Your task to perform on an android device: toggle pop-ups in chrome Image 0: 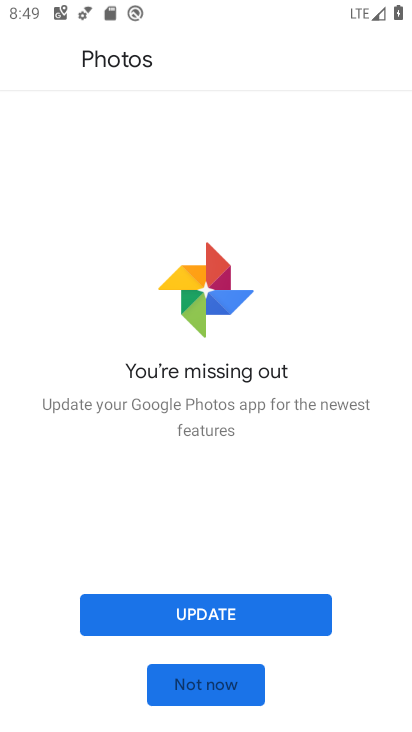
Step 0: press home button
Your task to perform on an android device: toggle pop-ups in chrome Image 1: 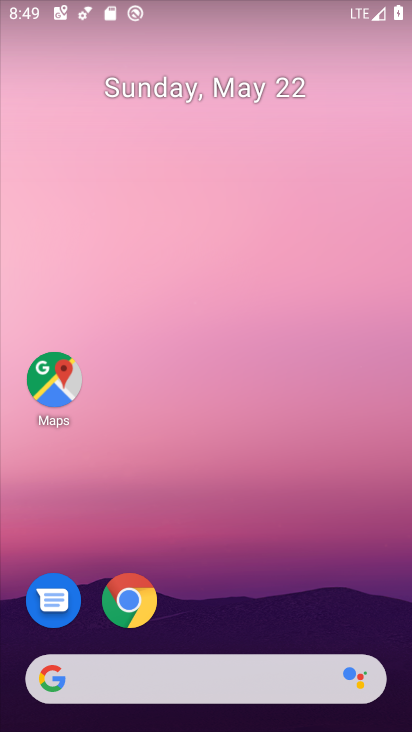
Step 1: click (140, 593)
Your task to perform on an android device: toggle pop-ups in chrome Image 2: 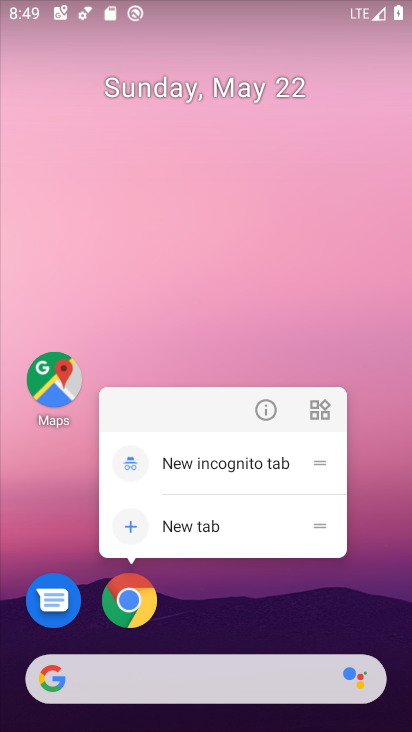
Step 2: click (105, 604)
Your task to perform on an android device: toggle pop-ups in chrome Image 3: 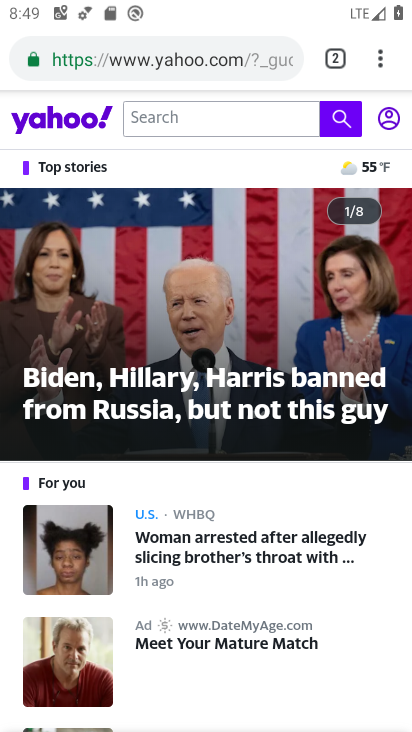
Step 3: click (380, 48)
Your task to perform on an android device: toggle pop-ups in chrome Image 4: 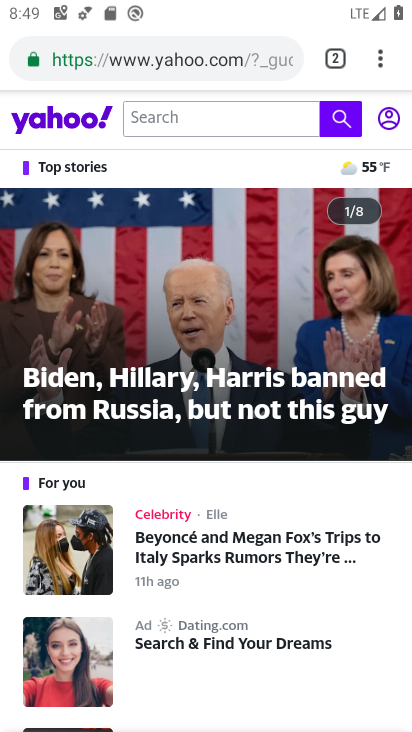
Step 4: click (380, 62)
Your task to perform on an android device: toggle pop-ups in chrome Image 5: 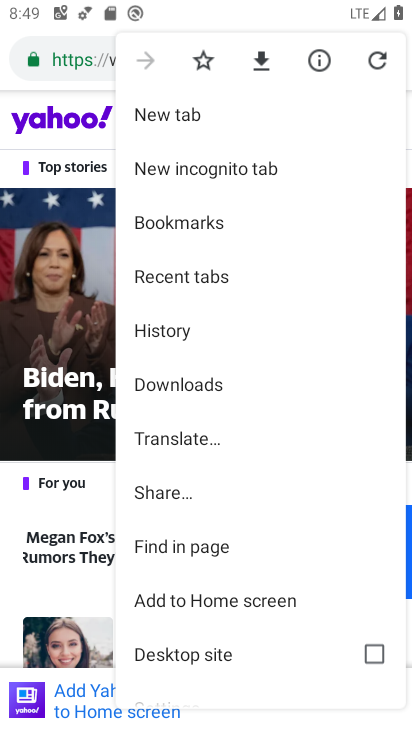
Step 5: drag from (201, 631) to (214, 323)
Your task to perform on an android device: toggle pop-ups in chrome Image 6: 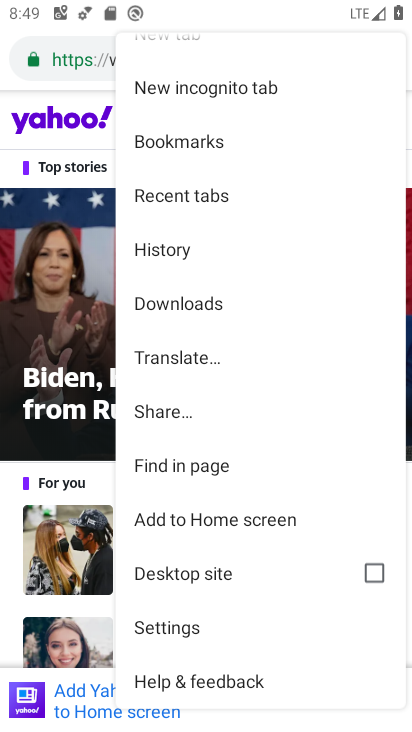
Step 6: click (159, 617)
Your task to perform on an android device: toggle pop-ups in chrome Image 7: 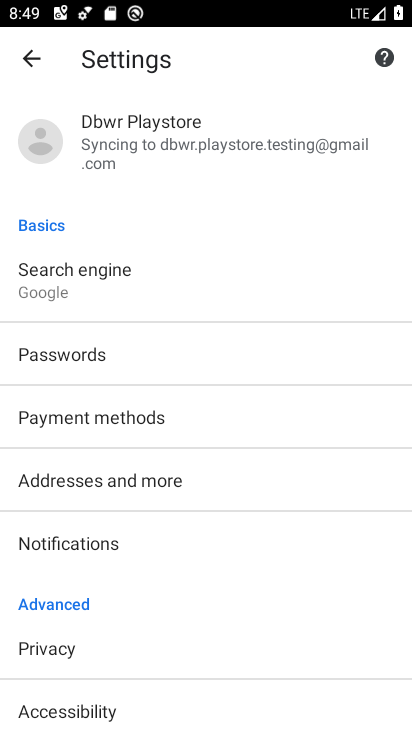
Step 7: drag from (98, 620) to (98, 287)
Your task to perform on an android device: toggle pop-ups in chrome Image 8: 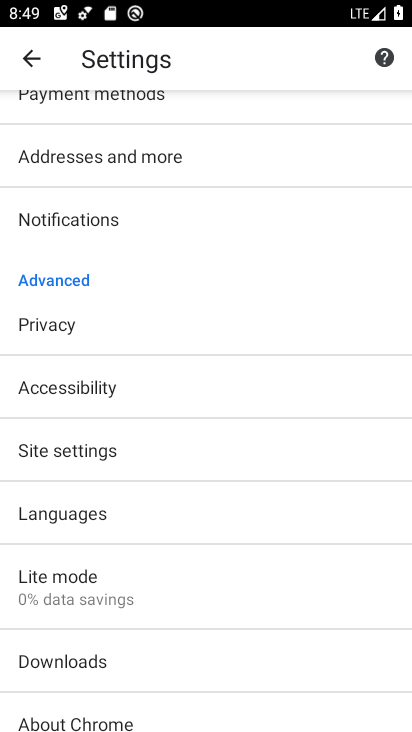
Step 8: click (65, 446)
Your task to perform on an android device: toggle pop-ups in chrome Image 9: 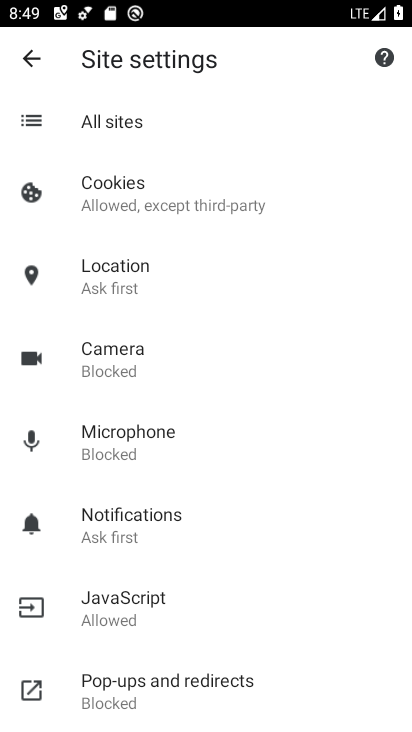
Step 9: click (116, 695)
Your task to perform on an android device: toggle pop-ups in chrome Image 10: 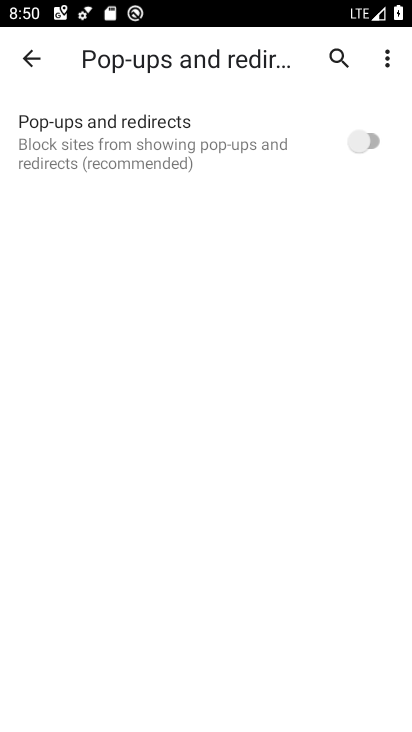
Step 10: click (368, 138)
Your task to perform on an android device: toggle pop-ups in chrome Image 11: 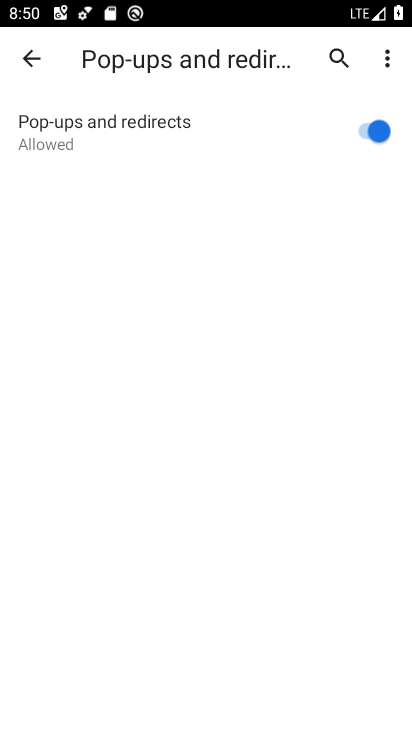
Step 11: task complete